Your task to perform on an android device: Open the calendar app, open the side menu, and click the "Day" option Image 0: 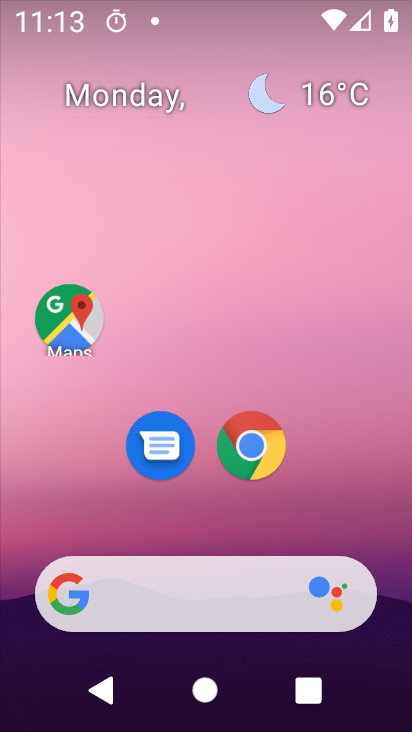
Step 0: drag from (192, 533) to (268, 10)
Your task to perform on an android device: Open the calendar app, open the side menu, and click the "Day" option Image 1: 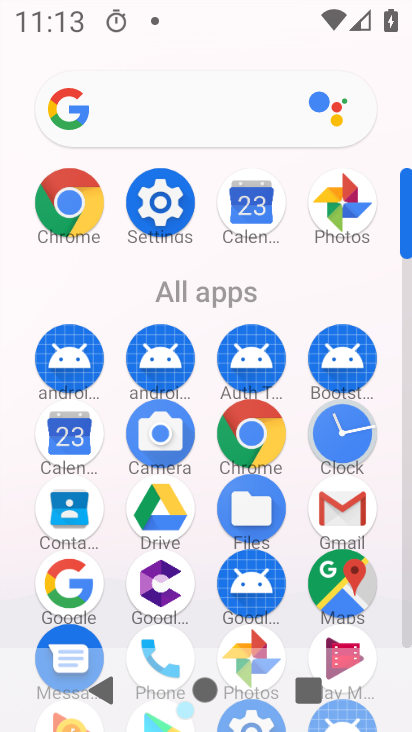
Step 1: click (81, 444)
Your task to perform on an android device: Open the calendar app, open the side menu, and click the "Day" option Image 2: 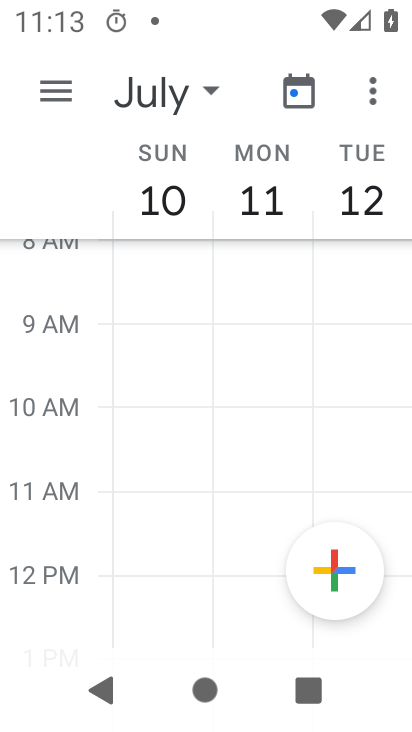
Step 2: click (56, 87)
Your task to perform on an android device: Open the calendar app, open the side menu, and click the "Day" option Image 3: 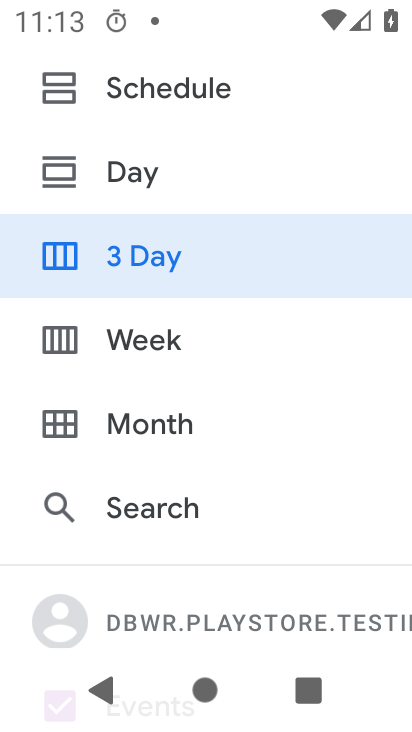
Step 3: click (137, 175)
Your task to perform on an android device: Open the calendar app, open the side menu, and click the "Day" option Image 4: 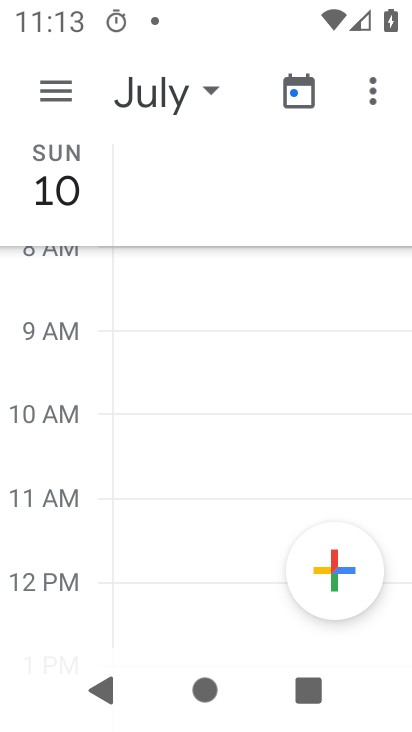
Step 4: task complete